Your task to perform on an android device: What is the recent news? Image 0: 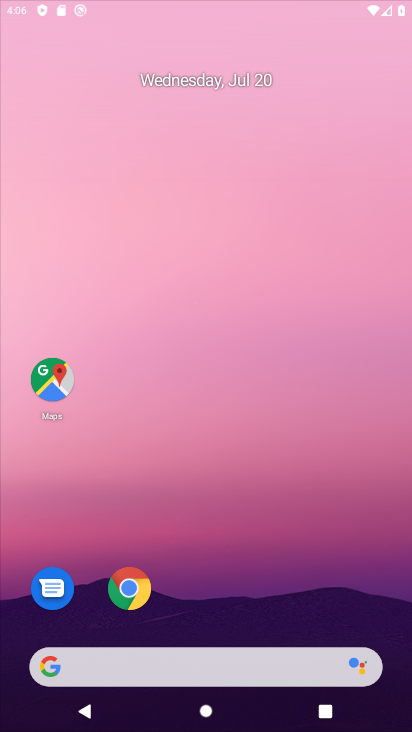
Step 0: press home button
Your task to perform on an android device: What is the recent news? Image 1: 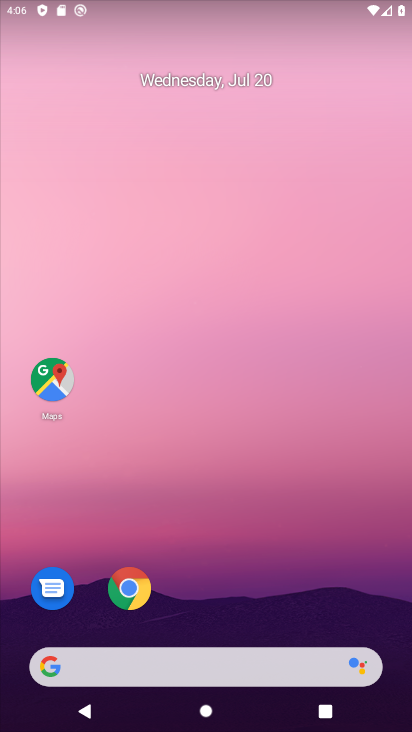
Step 1: click (229, 624)
Your task to perform on an android device: What is the recent news? Image 2: 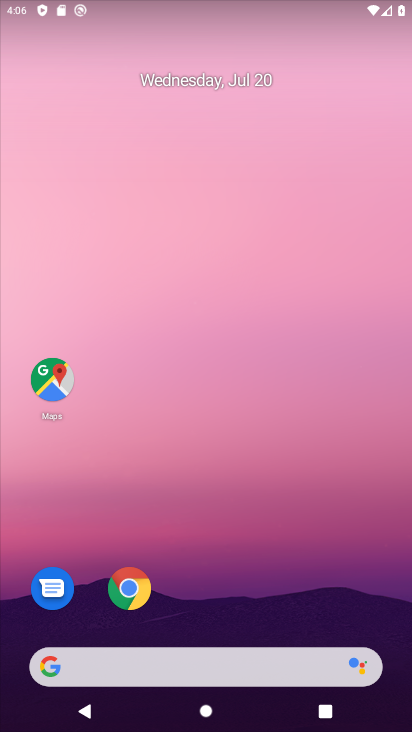
Step 2: task complete